Your task to perform on an android device: toggle location history Image 0: 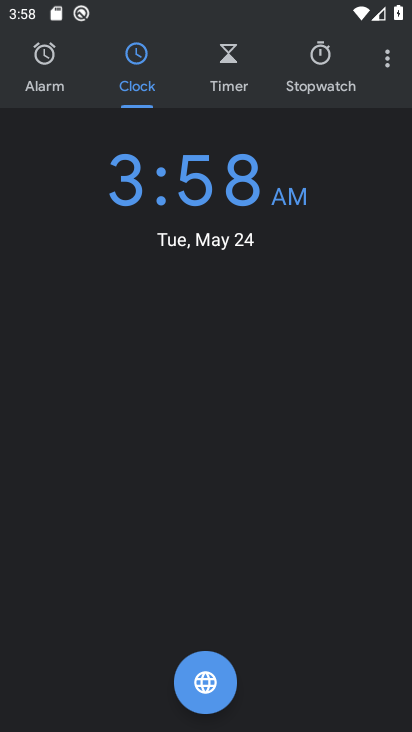
Step 0: press home button
Your task to perform on an android device: toggle location history Image 1: 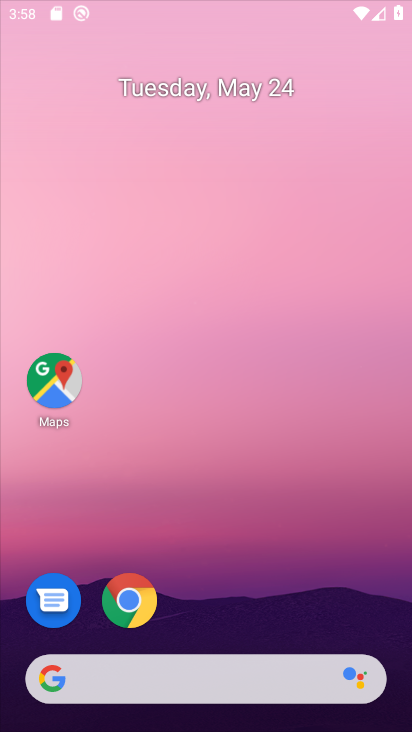
Step 1: drag from (268, 717) to (374, 140)
Your task to perform on an android device: toggle location history Image 2: 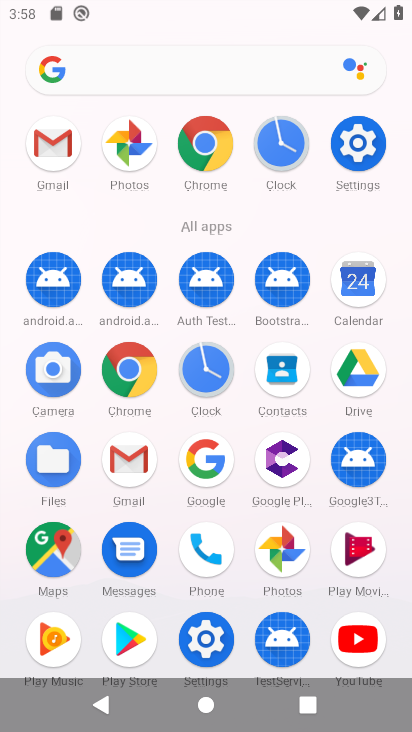
Step 2: click (367, 159)
Your task to perform on an android device: toggle location history Image 3: 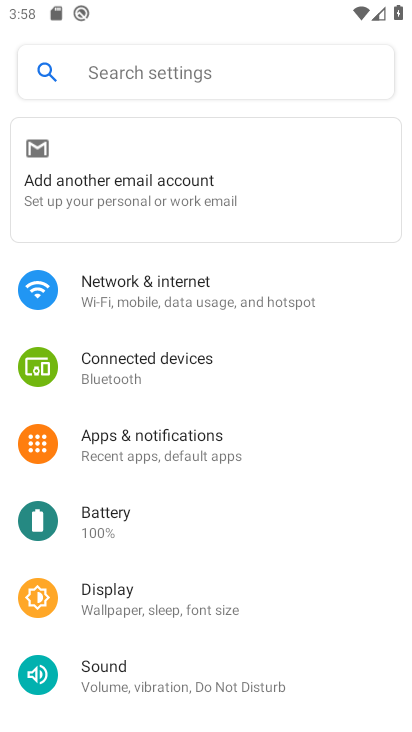
Step 3: drag from (132, 666) to (215, 58)
Your task to perform on an android device: toggle location history Image 4: 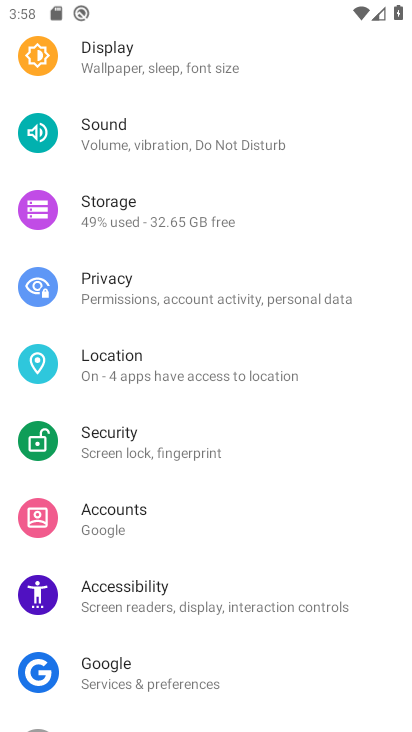
Step 4: click (131, 371)
Your task to perform on an android device: toggle location history Image 5: 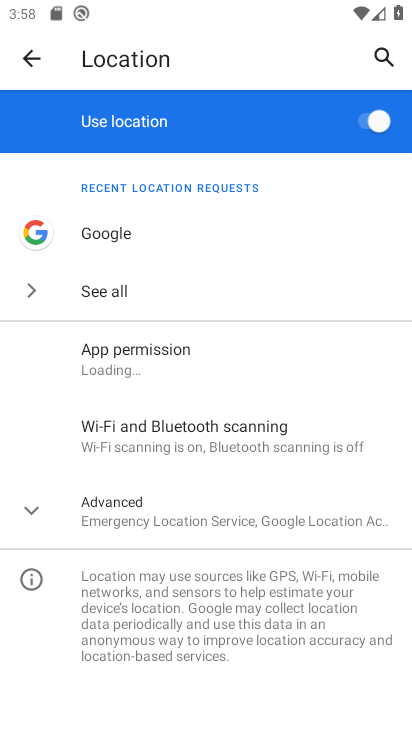
Step 5: click (144, 512)
Your task to perform on an android device: toggle location history Image 6: 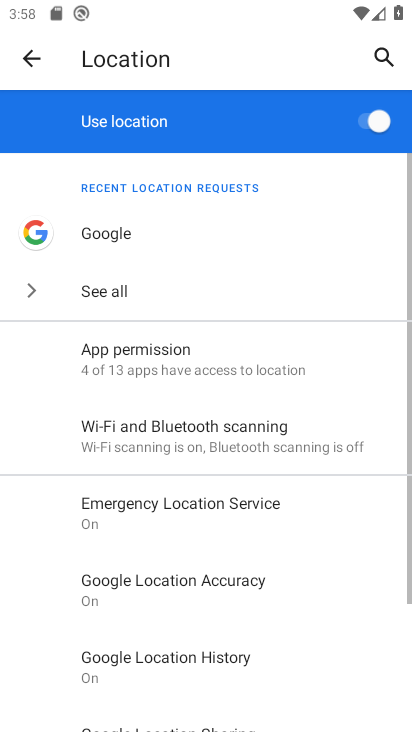
Step 6: click (155, 667)
Your task to perform on an android device: toggle location history Image 7: 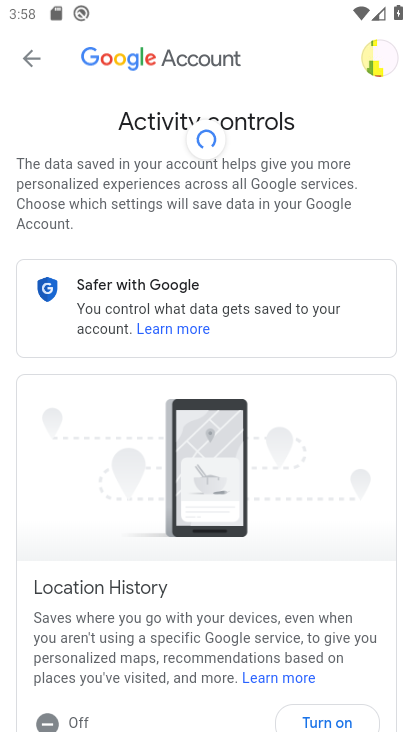
Step 7: drag from (324, 669) to (389, 94)
Your task to perform on an android device: toggle location history Image 8: 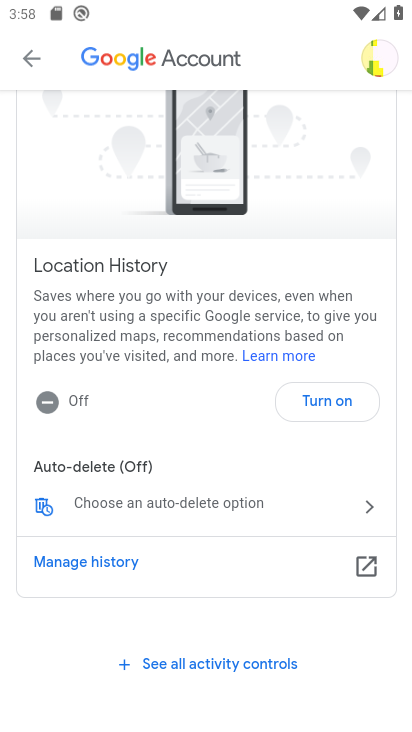
Step 8: click (330, 391)
Your task to perform on an android device: toggle location history Image 9: 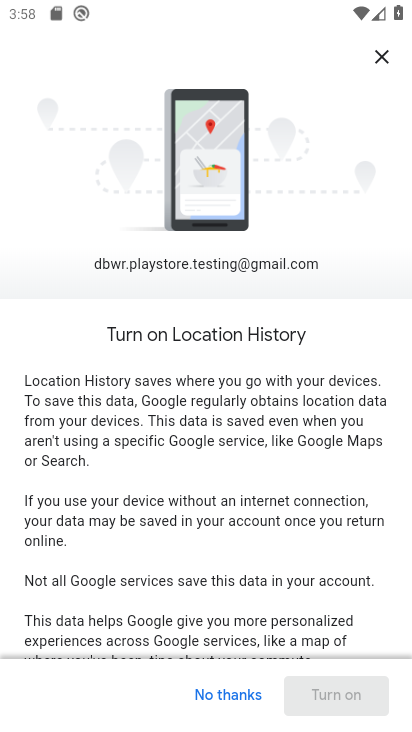
Step 9: drag from (266, 610) to (227, 0)
Your task to perform on an android device: toggle location history Image 10: 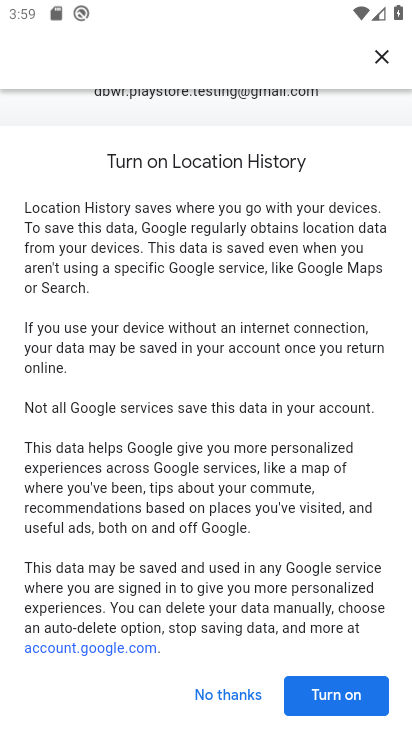
Step 10: click (349, 694)
Your task to perform on an android device: toggle location history Image 11: 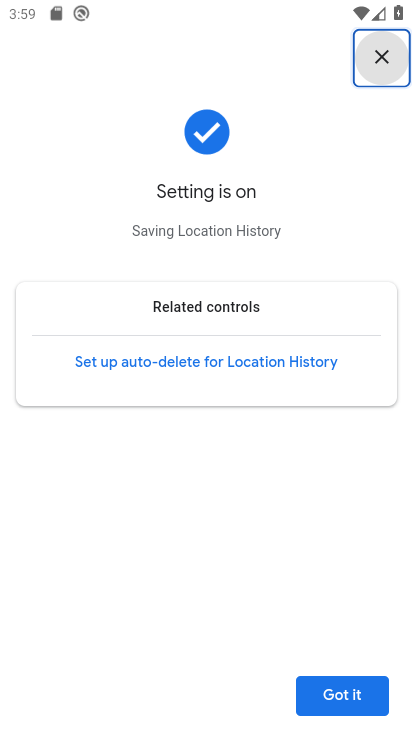
Step 11: task complete